Your task to perform on an android device: turn on javascript in the chrome app Image 0: 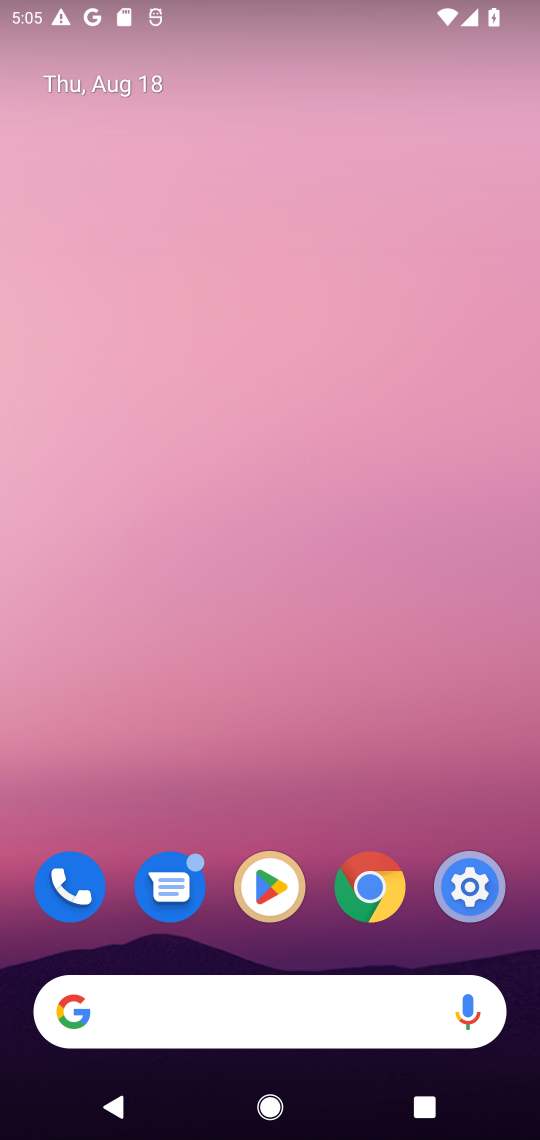
Step 0: drag from (311, 823) to (359, 245)
Your task to perform on an android device: turn on javascript in the chrome app Image 1: 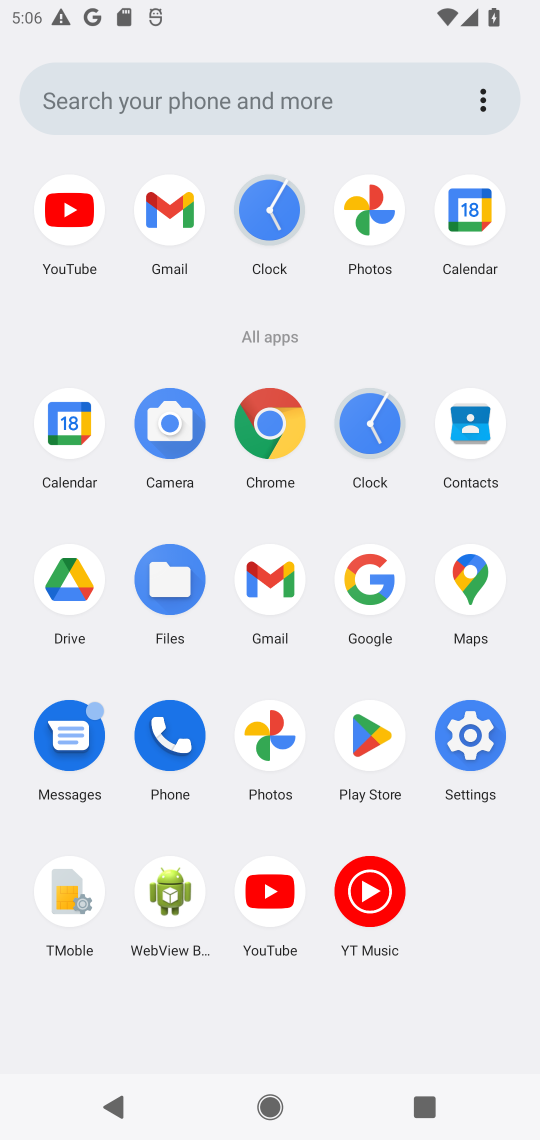
Step 1: click (287, 428)
Your task to perform on an android device: turn on javascript in the chrome app Image 2: 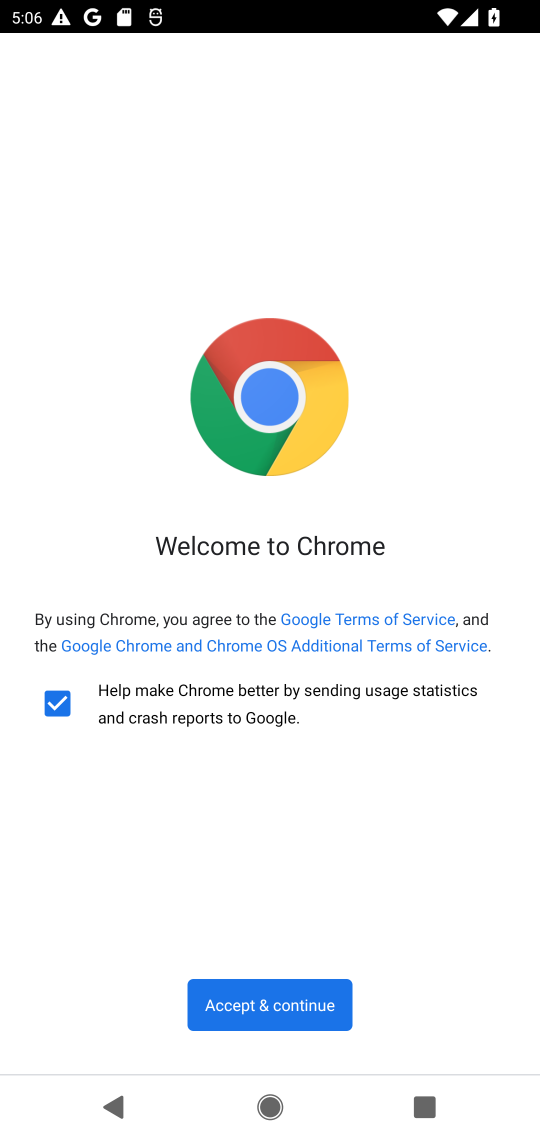
Step 2: task complete